Your task to perform on an android device: Go to Maps Image 0: 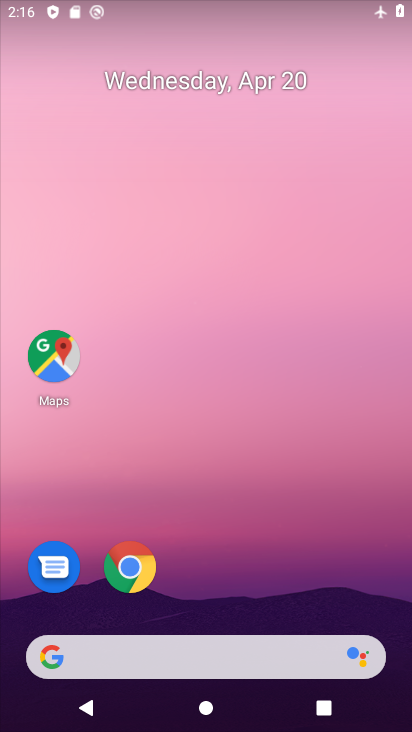
Step 0: click (56, 360)
Your task to perform on an android device: Go to Maps Image 1: 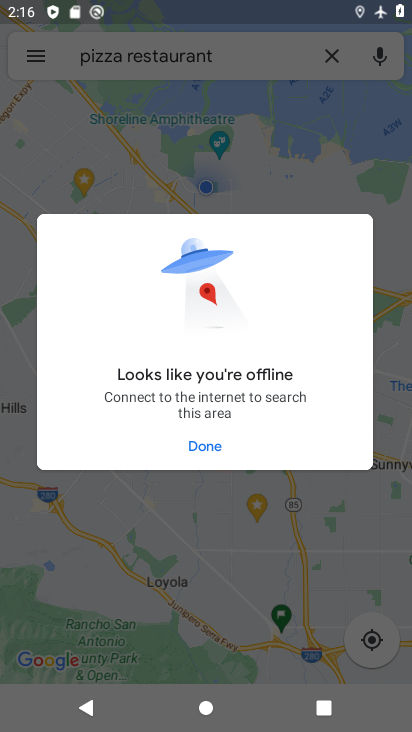
Step 1: click (212, 448)
Your task to perform on an android device: Go to Maps Image 2: 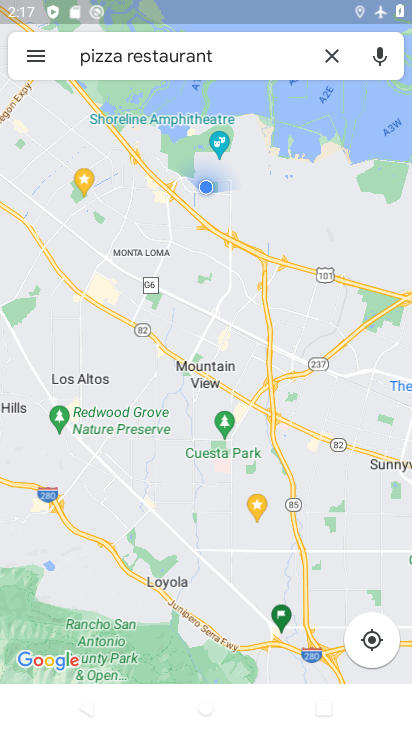
Step 2: task complete